Your task to perform on an android device: toggle javascript in the chrome app Image 0: 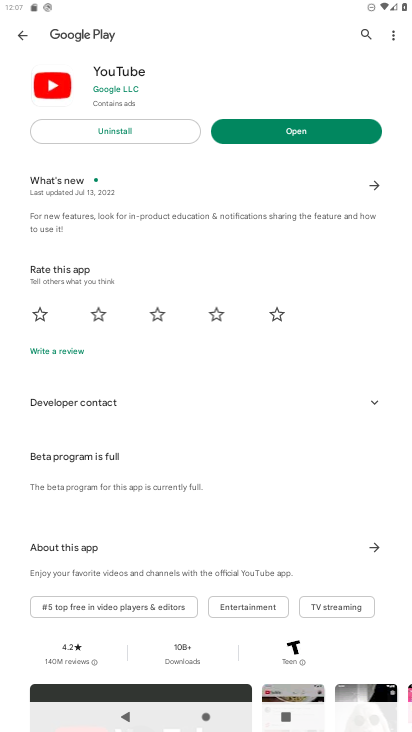
Step 0: press home button
Your task to perform on an android device: toggle javascript in the chrome app Image 1: 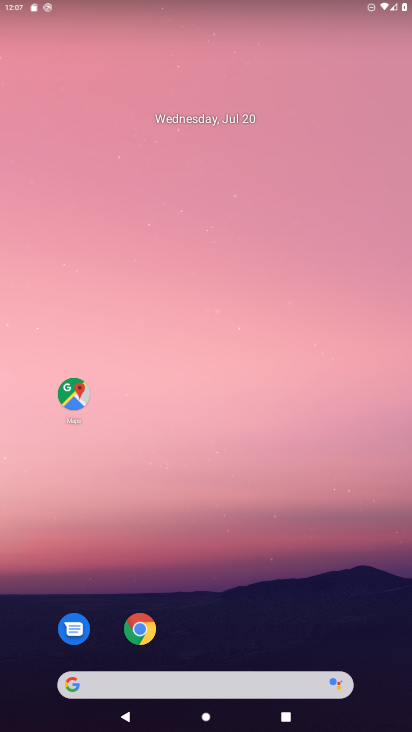
Step 1: click (137, 636)
Your task to perform on an android device: toggle javascript in the chrome app Image 2: 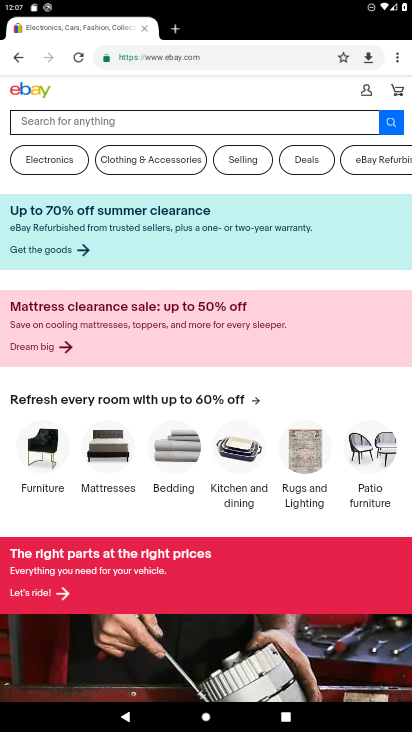
Step 2: click (395, 55)
Your task to perform on an android device: toggle javascript in the chrome app Image 3: 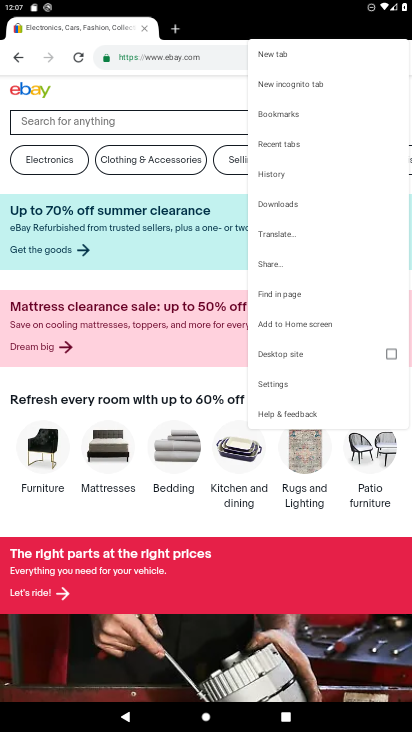
Step 3: click (259, 384)
Your task to perform on an android device: toggle javascript in the chrome app Image 4: 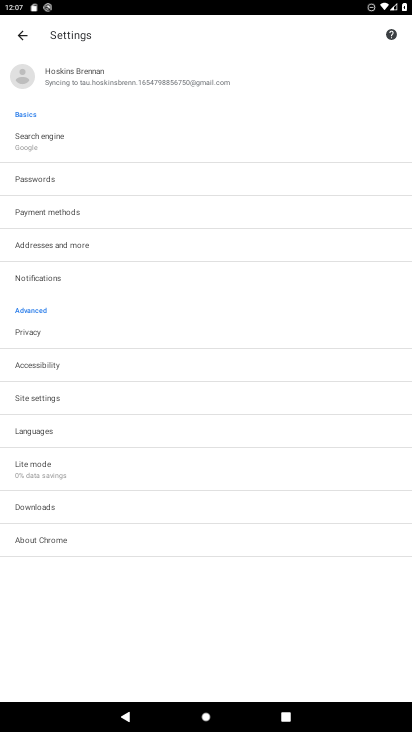
Step 4: click (36, 400)
Your task to perform on an android device: toggle javascript in the chrome app Image 5: 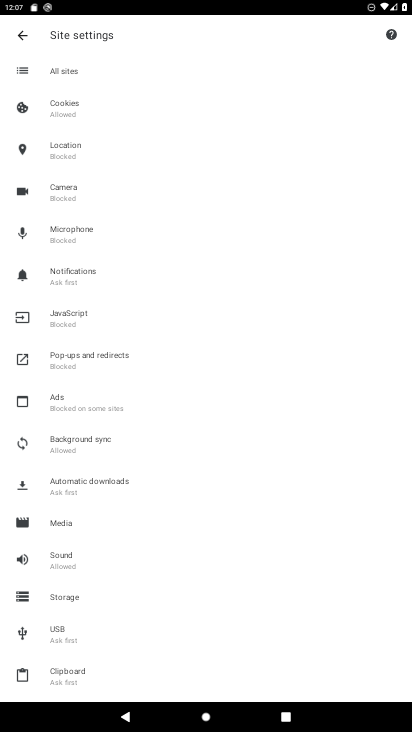
Step 5: click (67, 324)
Your task to perform on an android device: toggle javascript in the chrome app Image 6: 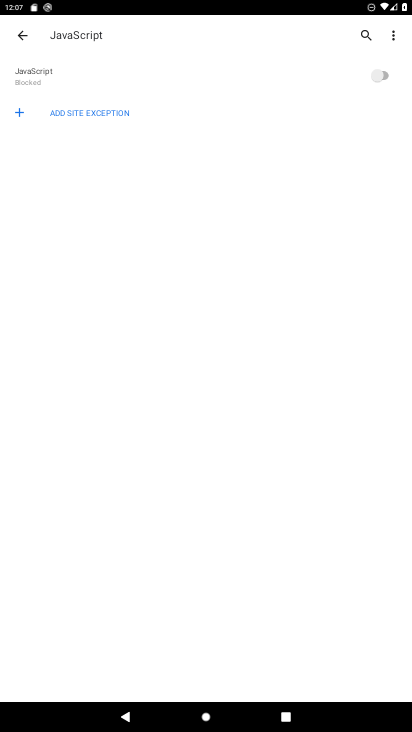
Step 6: click (383, 72)
Your task to perform on an android device: toggle javascript in the chrome app Image 7: 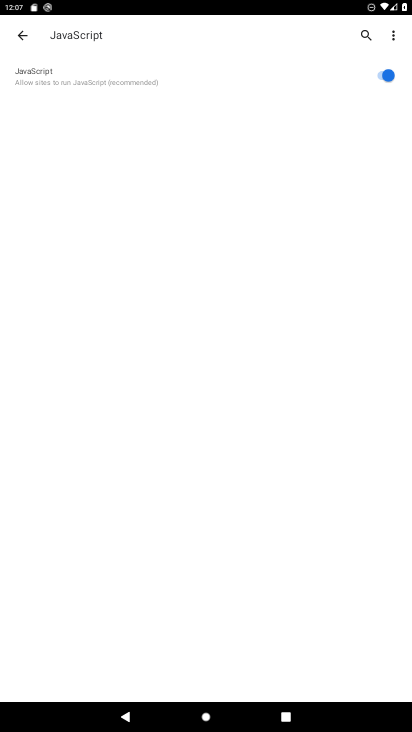
Step 7: task complete